Your task to perform on an android device: Show the shopping cart on walmart. Search for dell alienware on walmart, select the first entry, add it to the cart, then select checkout. Image 0: 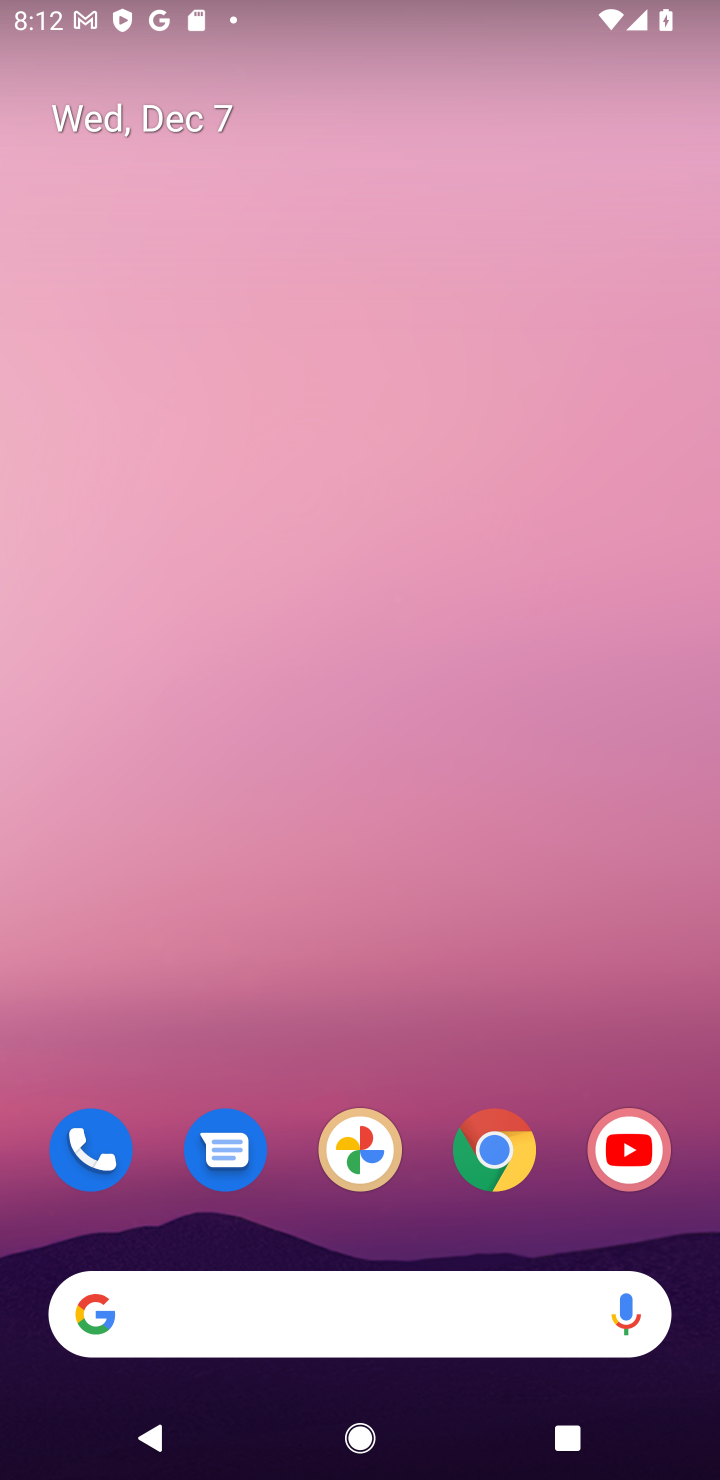
Step 0: click (489, 1152)
Your task to perform on an android device: Show the shopping cart on walmart. Search for dell alienware on walmart, select the first entry, add it to the cart, then select checkout. Image 1: 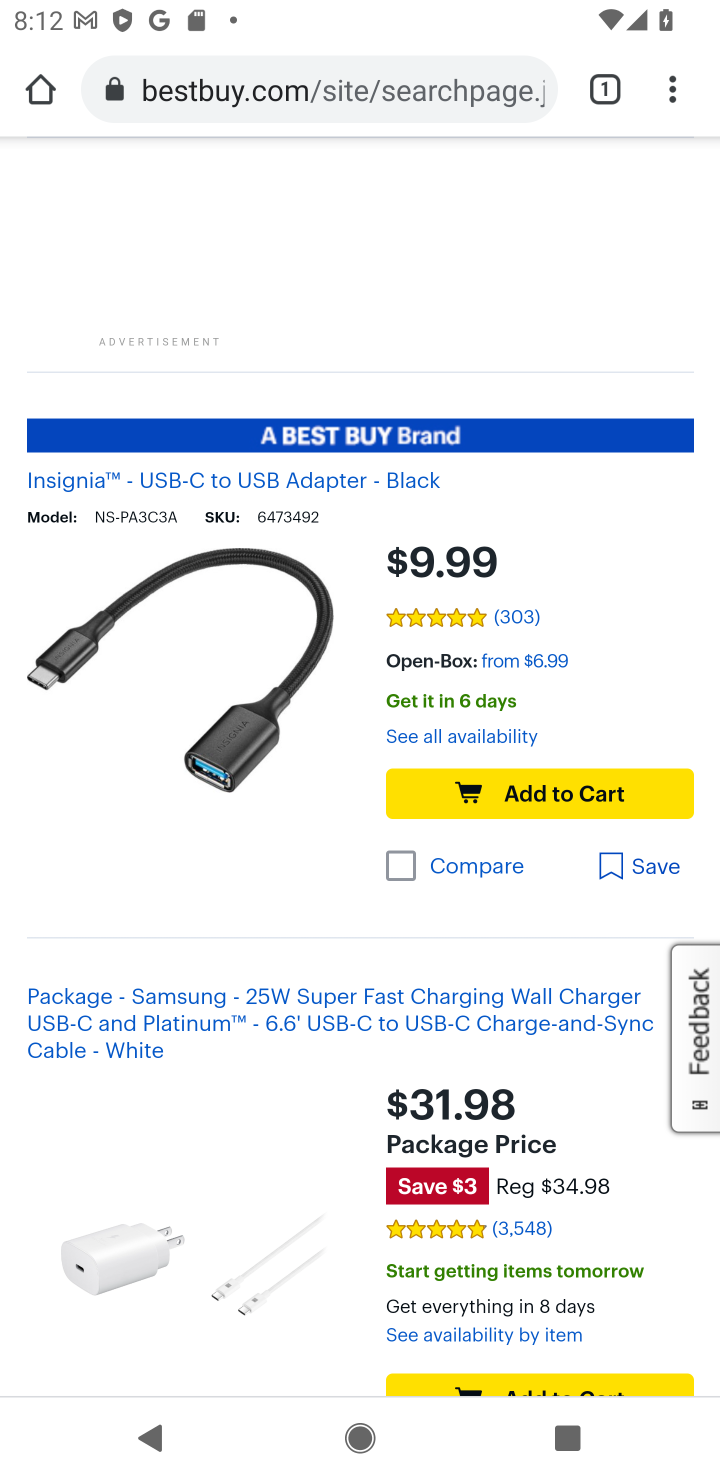
Step 1: click (390, 95)
Your task to perform on an android device: Show the shopping cart on walmart. Search for dell alienware on walmart, select the first entry, add it to the cart, then select checkout. Image 2: 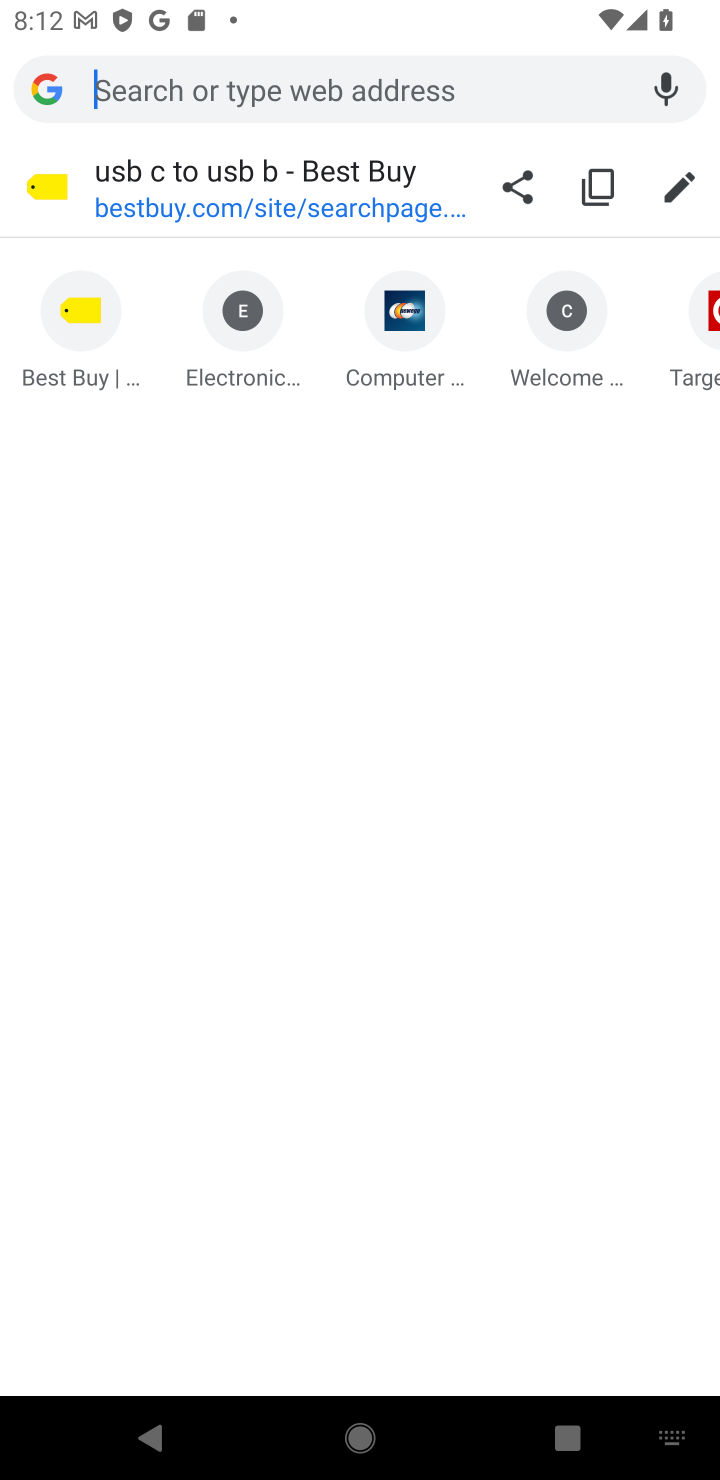
Step 2: type "walmart"
Your task to perform on an android device: Show the shopping cart on walmart. Search for dell alienware on walmart, select the first entry, add it to the cart, then select checkout. Image 3: 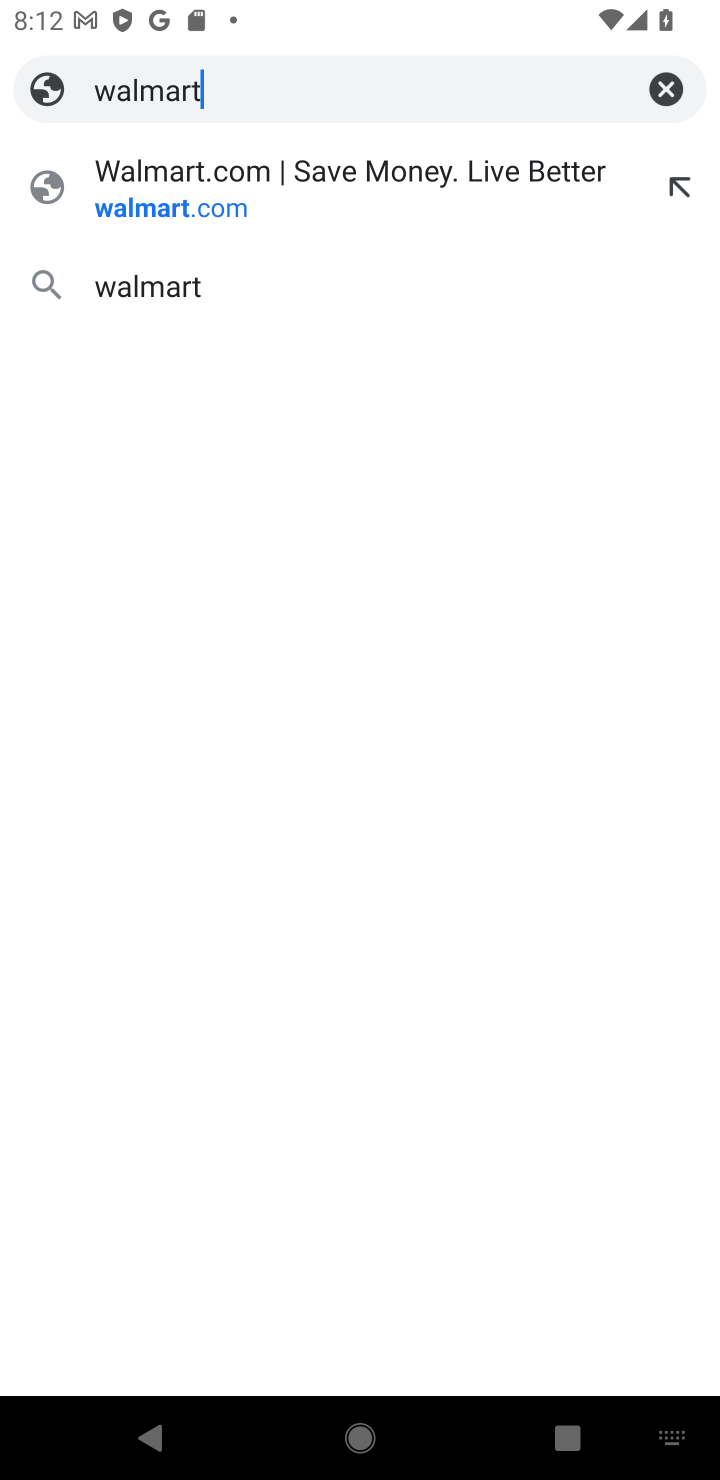
Step 3: click (218, 176)
Your task to perform on an android device: Show the shopping cart on walmart. Search for dell alienware on walmart, select the first entry, add it to the cart, then select checkout. Image 4: 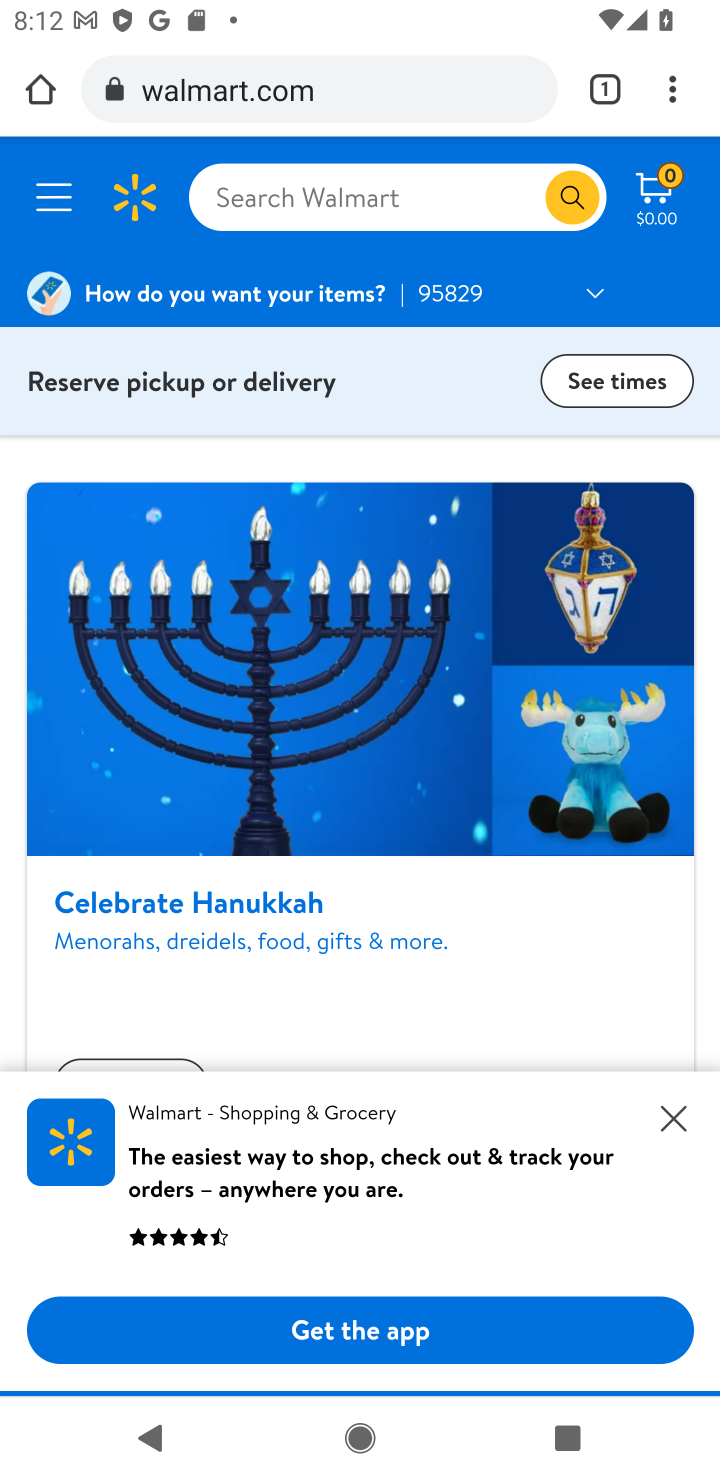
Step 4: click (663, 218)
Your task to perform on an android device: Show the shopping cart on walmart. Search for dell alienware on walmart, select the first entry, add it to the cart, then select checkout. Image 5: 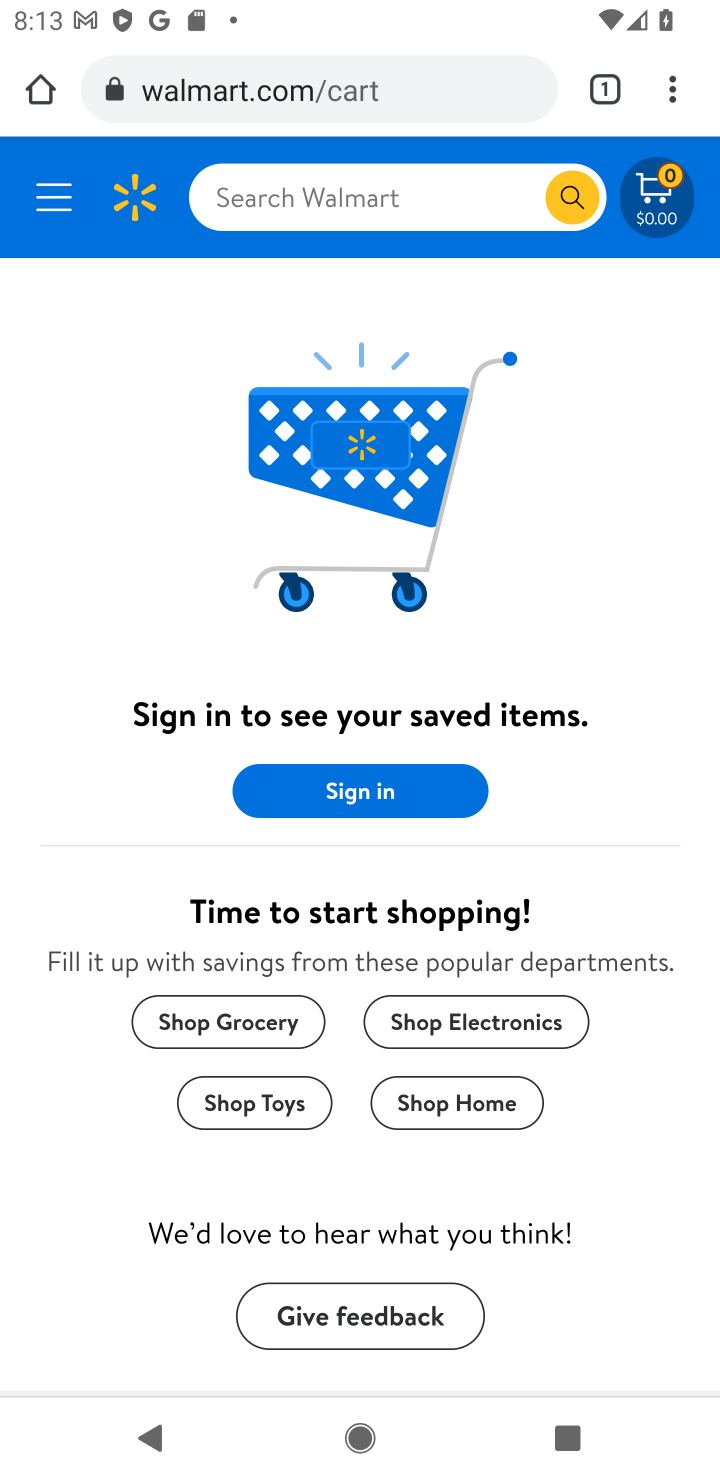
Step 5: click (468, 198)
Your task to perform on an android device: Show the shopping cart on walmart. Search for dell alienware on walmart, select the first entry, add it to the cart, then select checkout. Image 6: 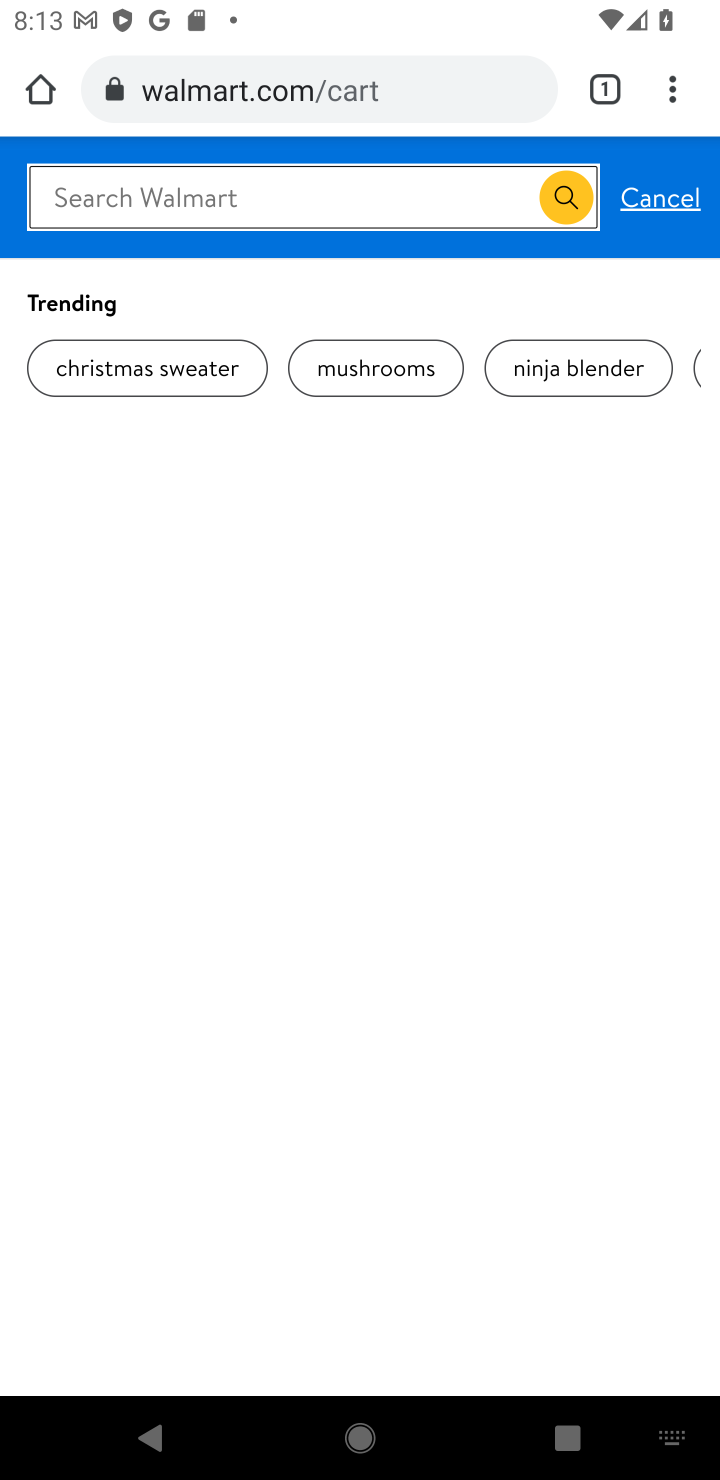
Step 6: type "dell alienware"
Your task to perform on an android device: Show the shopping cart on walmart. Search for dell alienware on walmart, select the first entry, add it to the cart, then select checkout. Image 7: 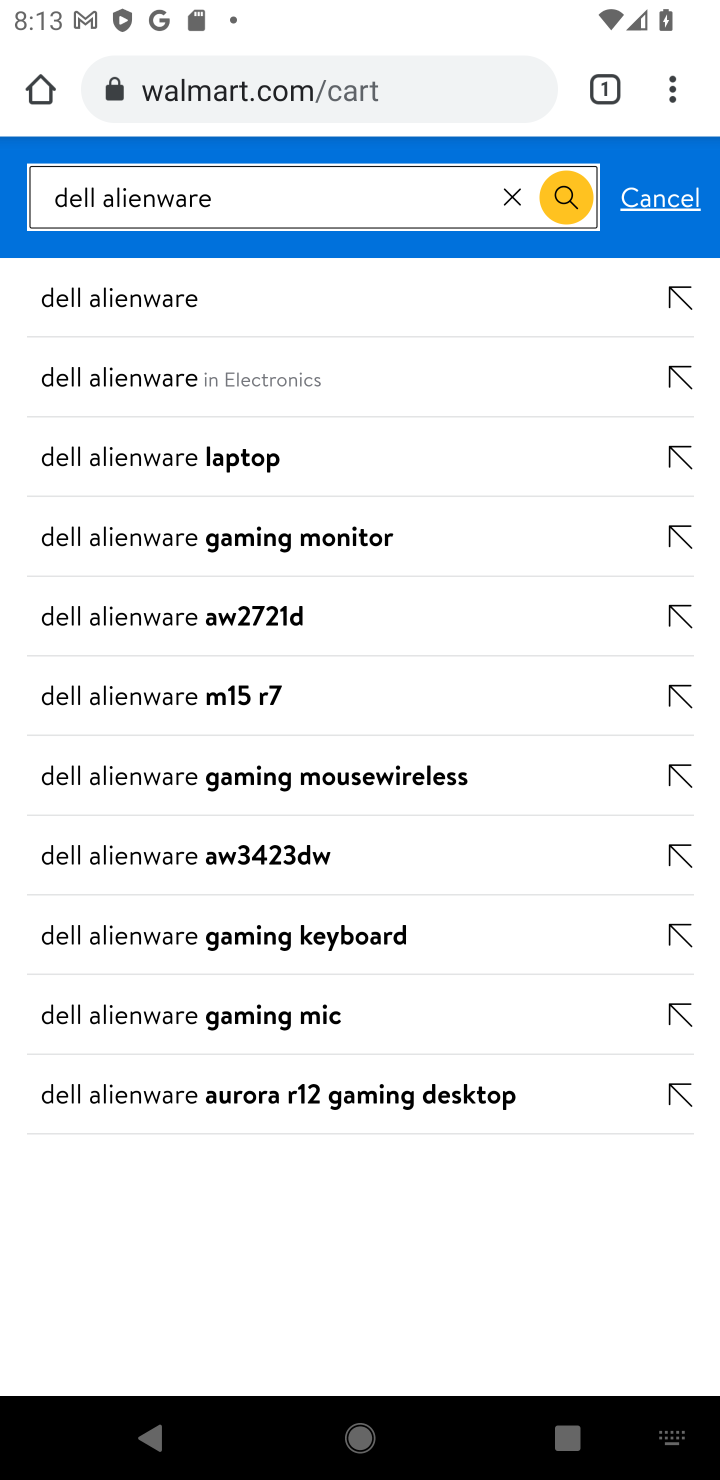
Step 7: click (174, 298)
Your task to perform on an android device: Show the shopping cart on walmart. Search for dell alienware on walmart, select the first entry, add it to the cart, then select checkout. Image 8: 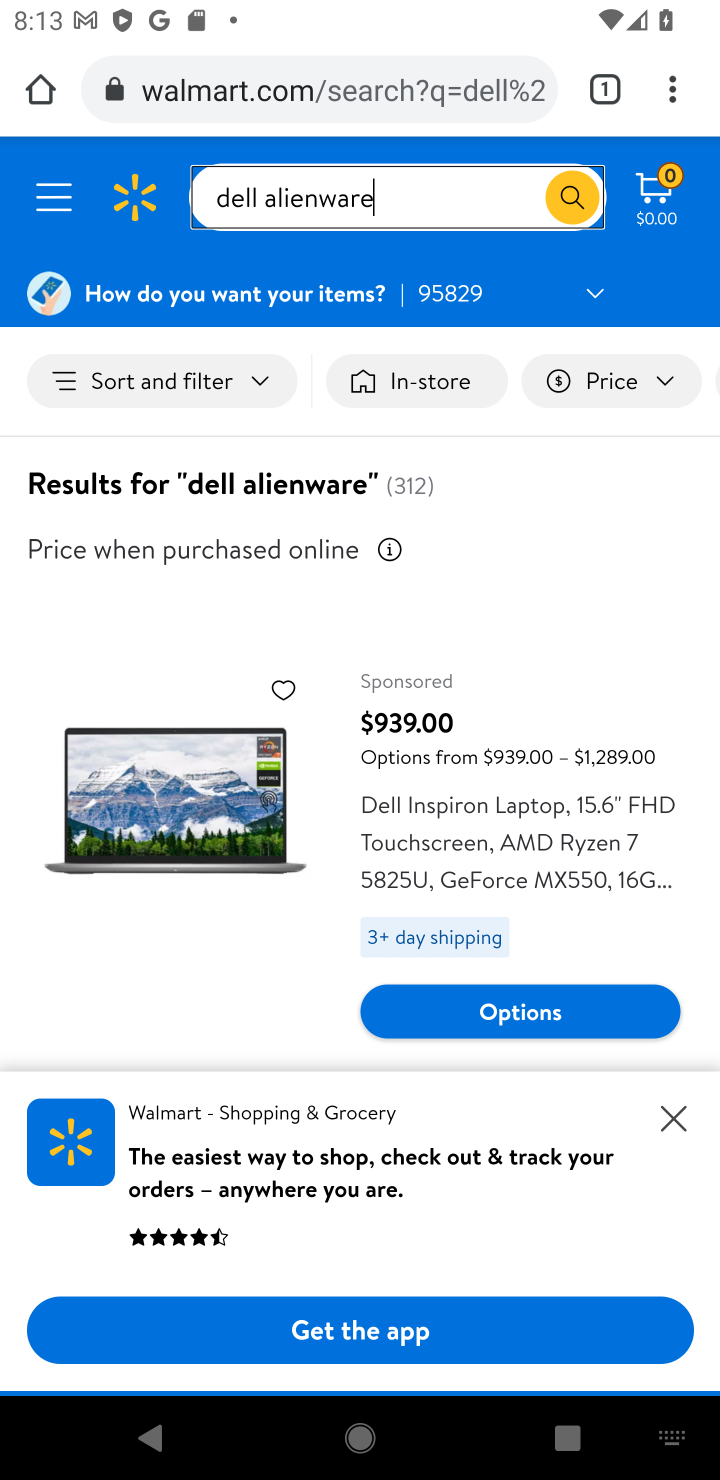
Step 8: drag from (450, 799) to (468, 267)
Your task to perform on an android device: Show the shopping cart on walmart. Search for dell alienware on walmart, select the first entry, add it to the cart, then select checkout. Image 9: 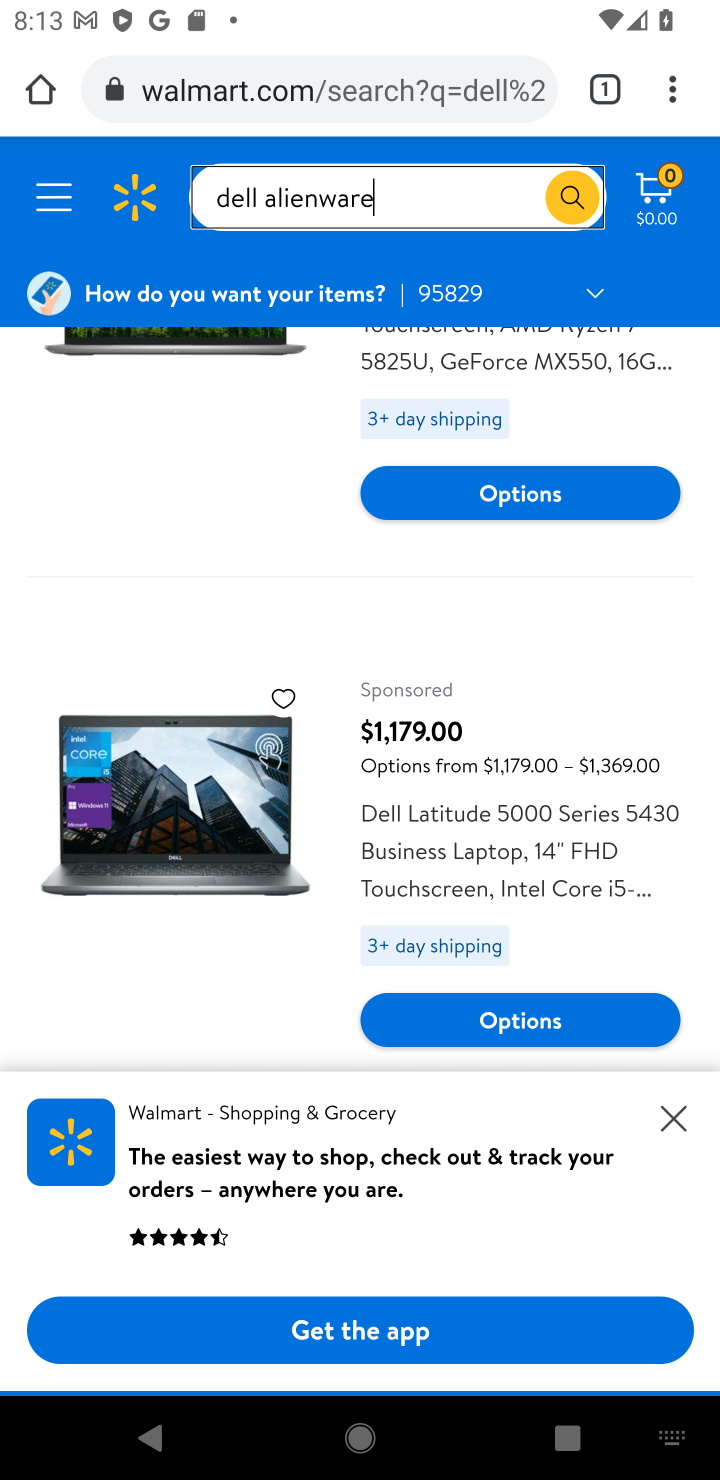
Step 9: drag from (470, 752) to (442, 284)
Your task to perform on an android device: Show the shopping cart on walmart. Search for dell alienware on walmart, select the first entry, add it to the cart, then select checkout. Image 10: 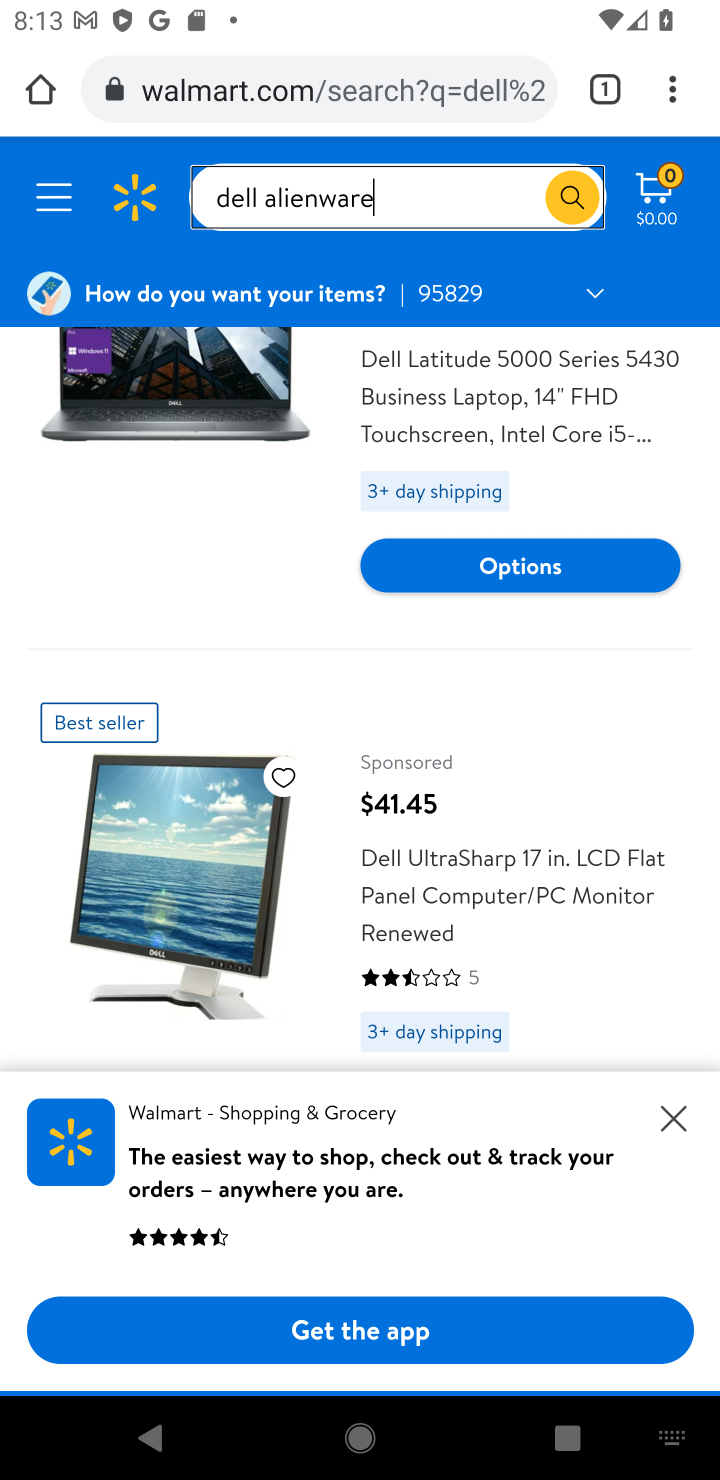
Step 10: click (671, 1112)
Your task to perform on an android device: Show the shopping cart on walmart. Search for dell alienware on walmart, select the first entry, add it to the cart, then select checkout. Image 11: 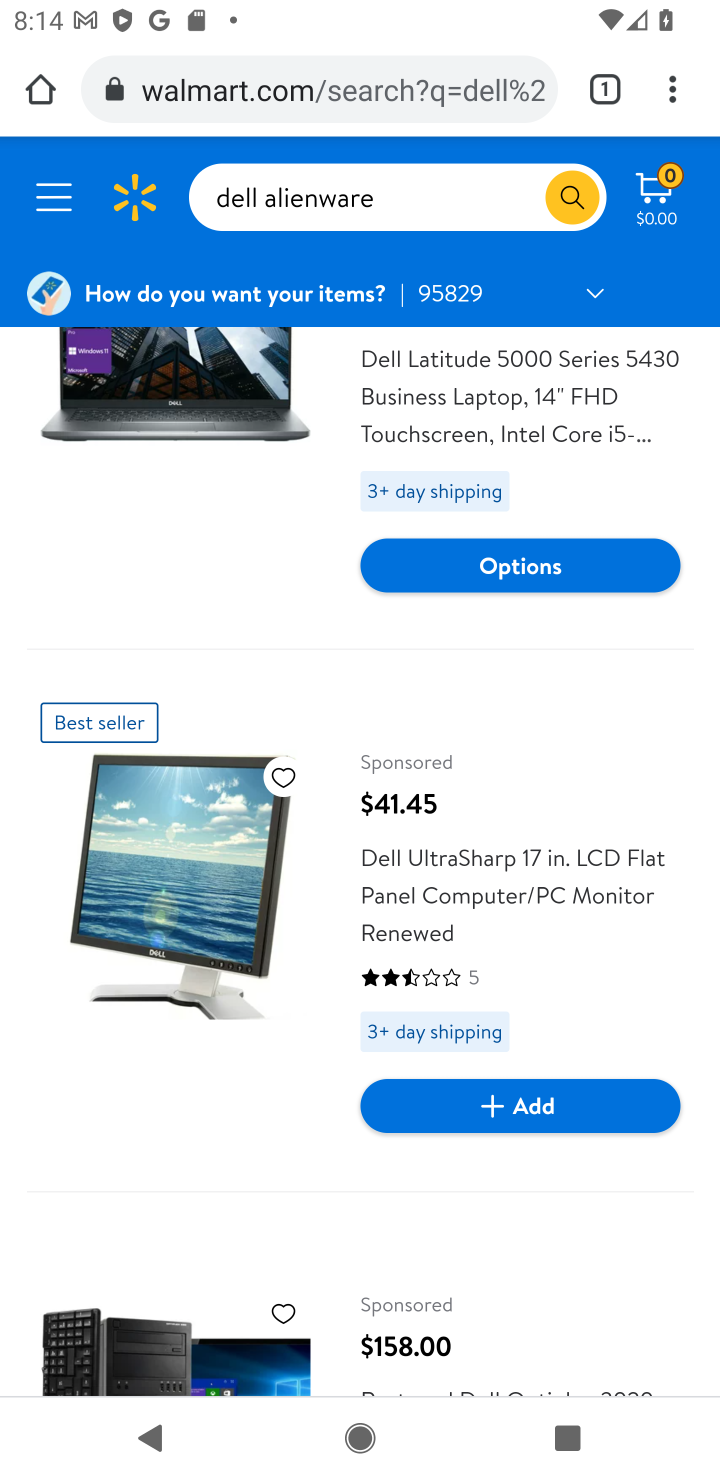
Step 11: drag from (621, 886) to (592, 418)
Your task to perform on an android device: Show the shopping cart on walmart. Search for dell alienware on walmart, select the first entry, add it to the cart, then select checkout. Image 12: 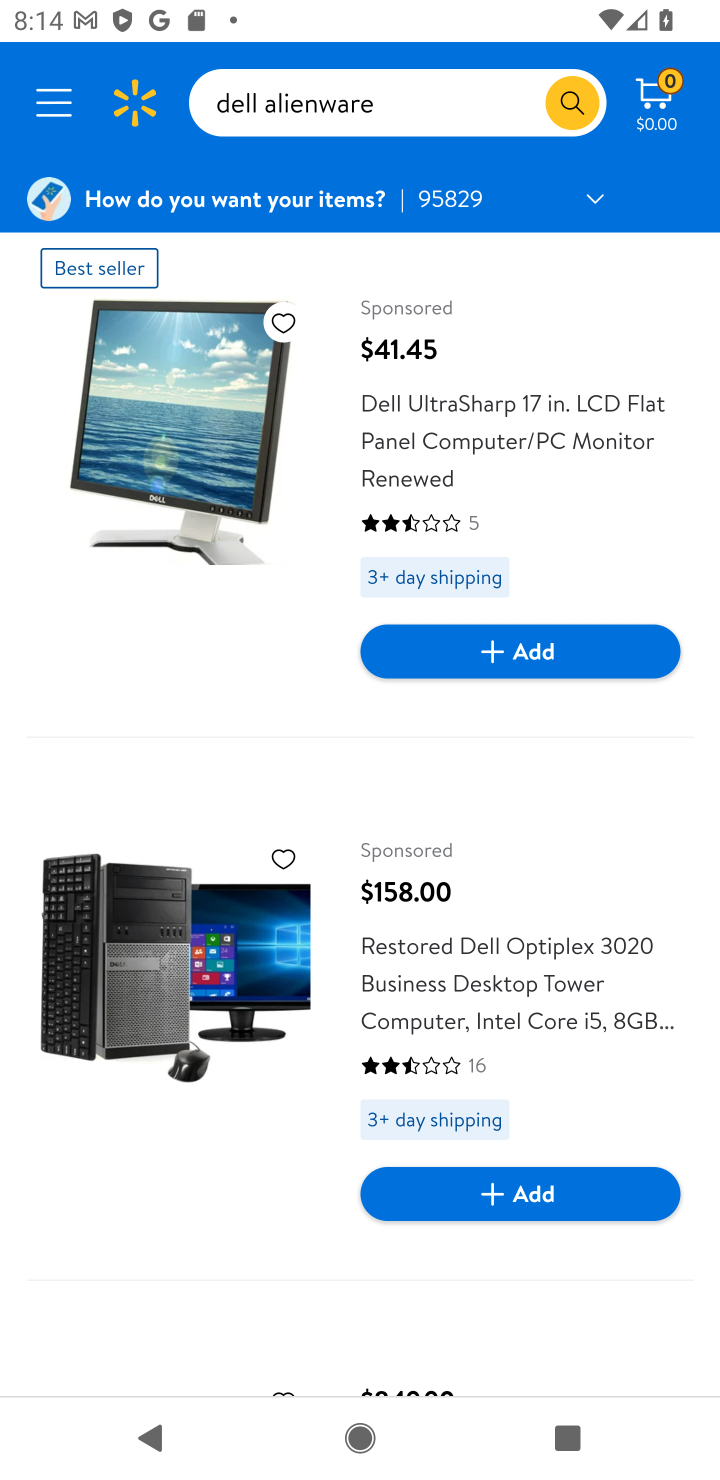
Step 12: drag from (613, 939) to (597, 388)
Your task to perform on an android device: Show the shopping cart on walmart. Search for dell alienware on walmart, select the first entry, add it to the cart, then select checkout. Image 13: 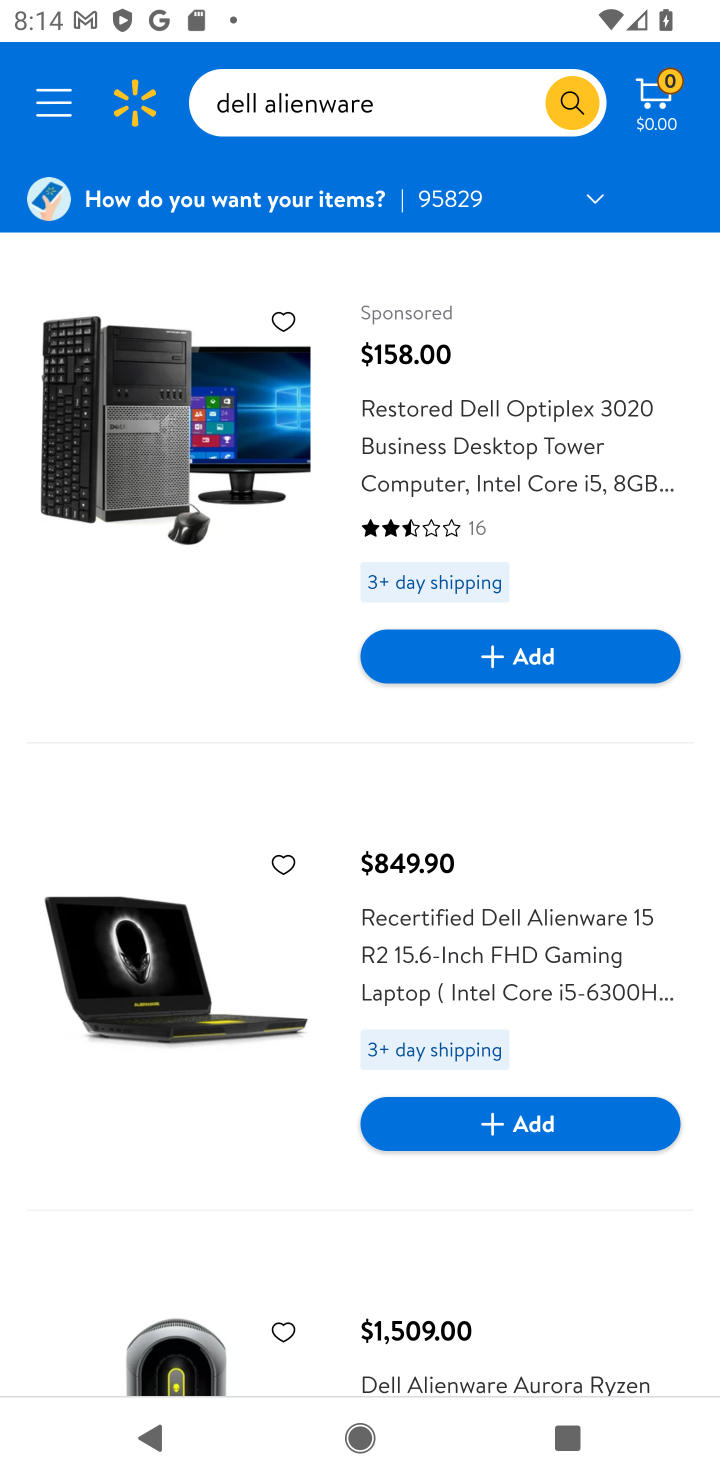
Step 13: click (177, 957)
Your task to perform on an android device: Show the shopping cart on walmart. Search for dell alienware on walmart, select the first entry, add it to the cart, then select checkout. Image 14: 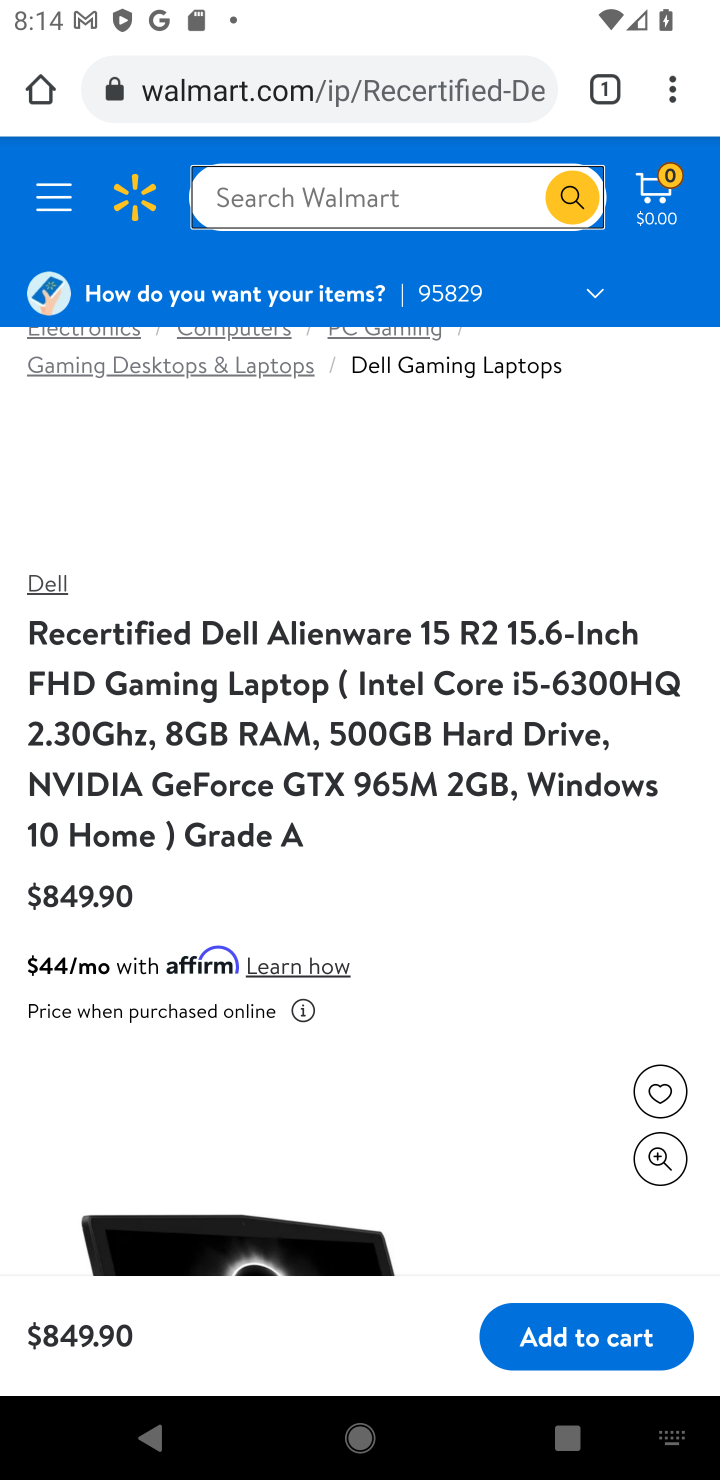
Step 14: click (596, 1326)
Your task to perform on an android device: Show the shopping cart on walmart. Search for dell alienware on walmart, select the first entry, add it to the cart, then select checkout. Image 15: 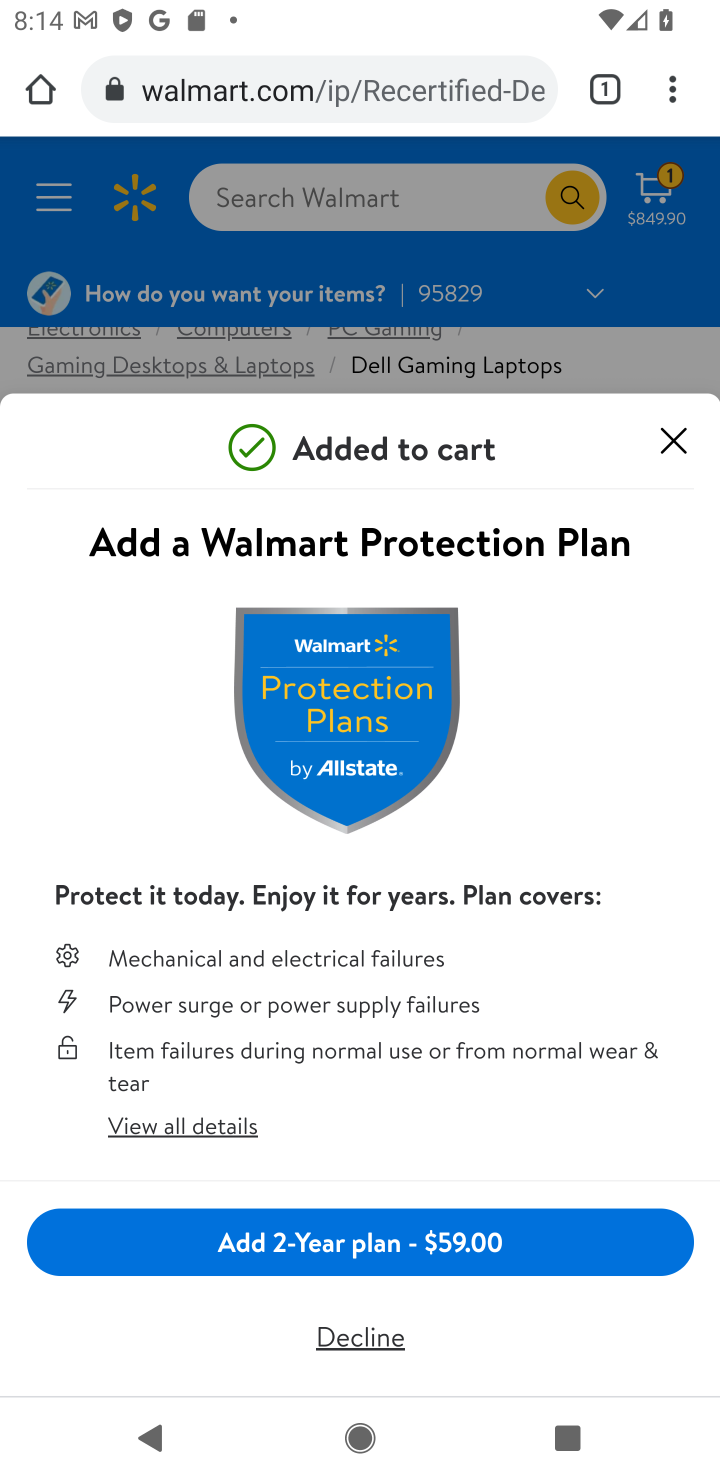
Step 15: click (673, 441)
Your task to perform on an android device: Show the shopping cart on walmart. Search for dell alienware on walmart, select the first entry, add it to the cart, then select checkout. Image 16: 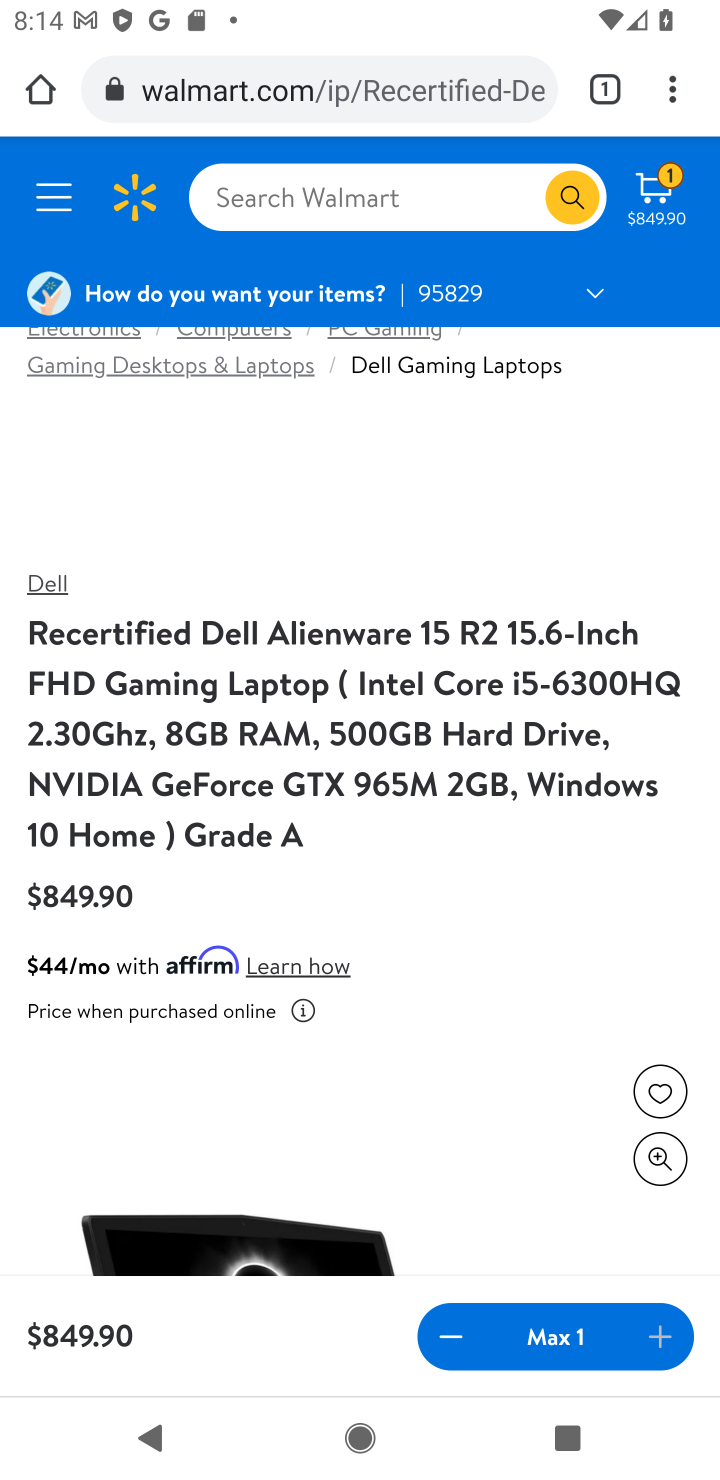
Step 16: click (674, 215)
Your task to perform on an android device: Show the shopping cart on walmart. Search for dell alienware on walmart, select the first entry, add it to the cart, then select checkout. Image 17: 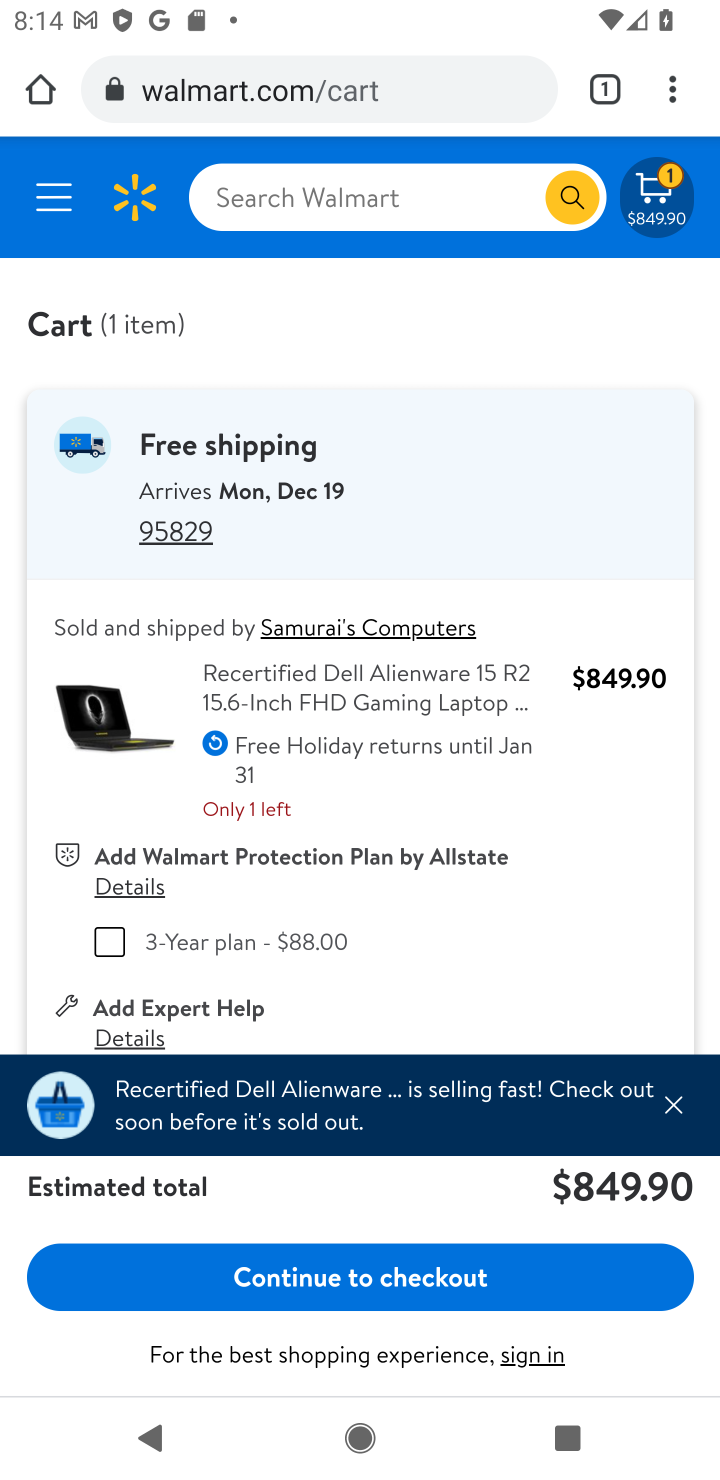
Step 17: click (429, 1269)
Your task to perform on an android device: Show the shopping cart on walmart. Search for dell alienware on walmart, select the first entry, add it to the cart, then select checkout. Image 18: 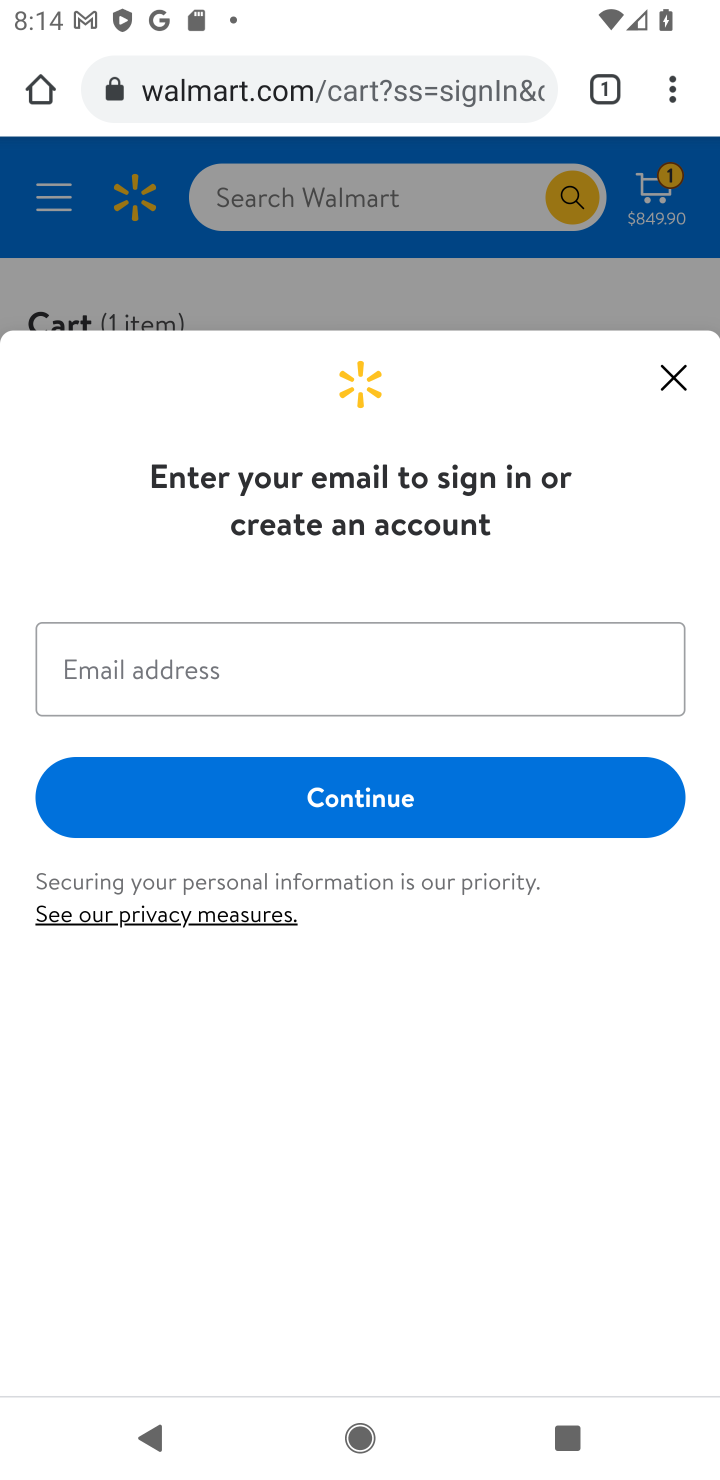
Step 18: task complete